Your task to perform on an android device: Search for vegetarian restaurants on Maps Image 0: 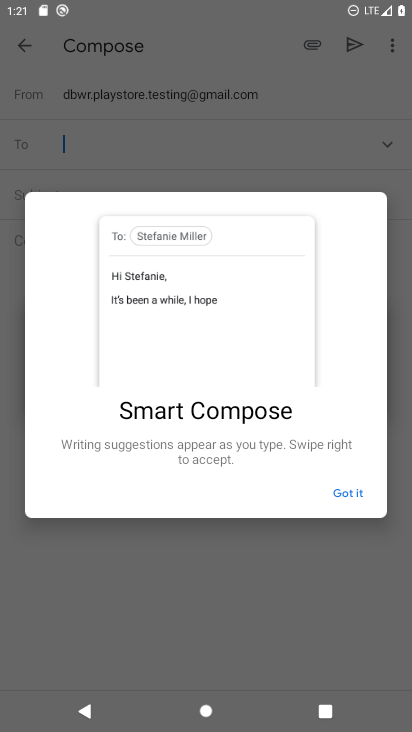
Step 0: press home button
Your task to perform on an android device: Search for vegetarian restaurants on Maps Image 1: 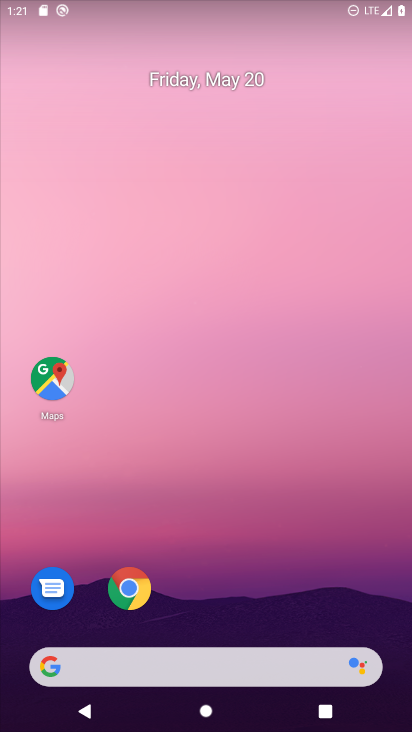
Step 1: click (49, 376)
Your task to perform on an android device: Search for vegetarian restaurants on Maps Image 2: 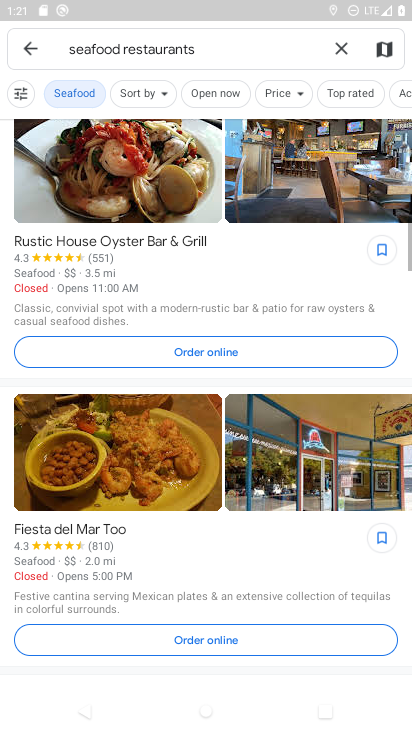
Step 2: click (340, 46)
Your task to perform on an android device: Search for vegetarian restaurants on Maps Image 3: 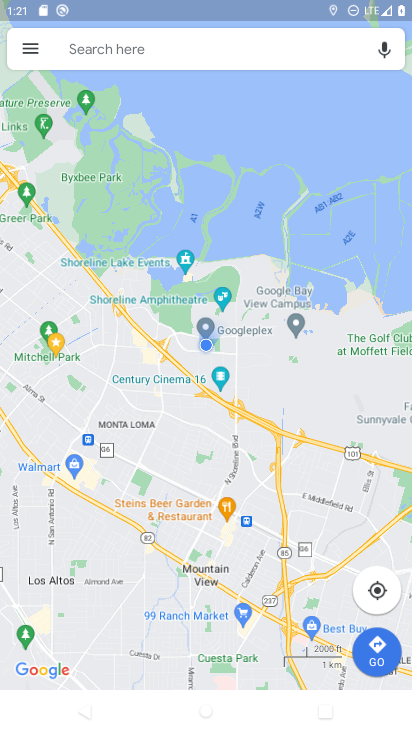
Step 3: click (104, 47)
Your task to perform on an android device: Search for vegetarian restaurants on Maps Image 4: 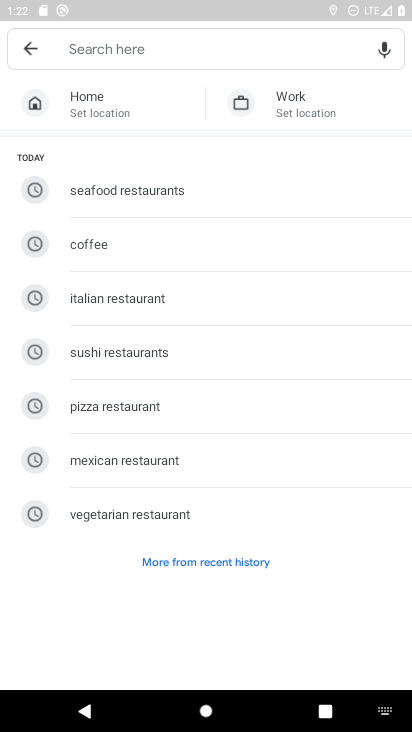
Step 4: type "vegetarian restaurants"
Your task to perform on an android device: Search for vegetarian restaurants on Maps Image 5: 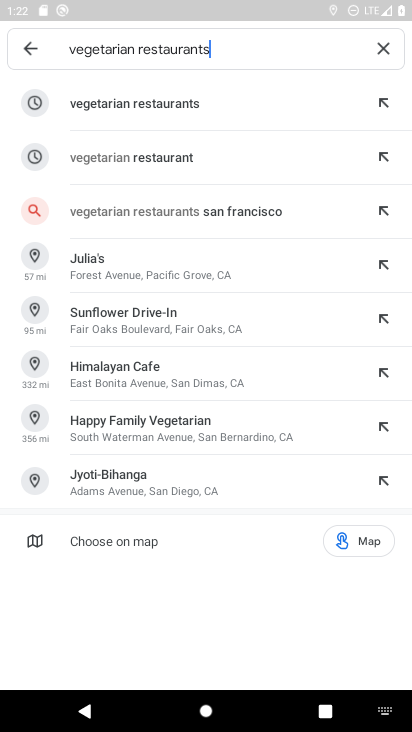
Step 5: click (114, 105)
Your task to perform on an android device: Search for vegetarian restaurants on Maps Image 6: 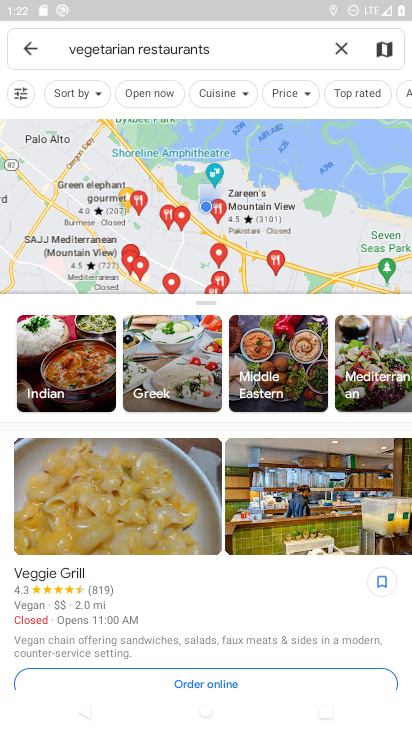
Step 6: task complete